Your task to perform on an android device: Go to Google maps Image 0: 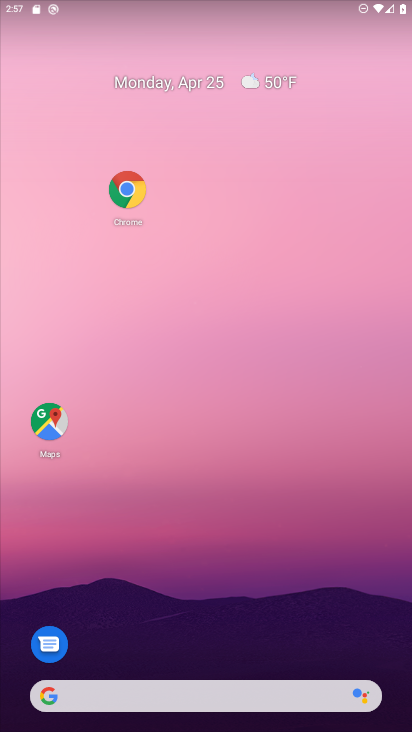
Step 0: click (45, 422)
Your task to perform on an android device: Go to Google maps Image 1: 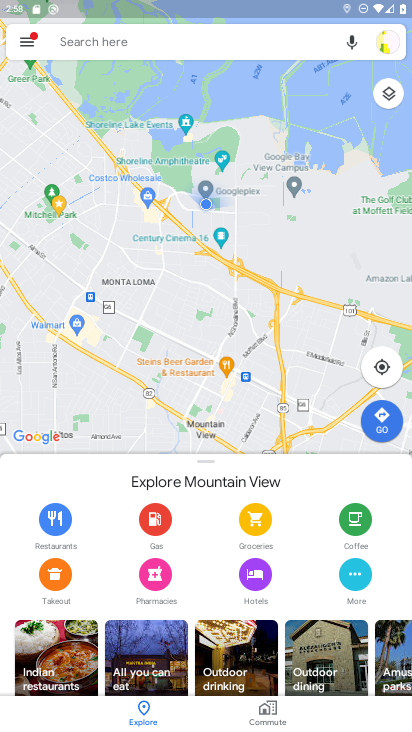
Step 1: task complete